Your task to perform on an android device: Go to privacy settings Image 0: 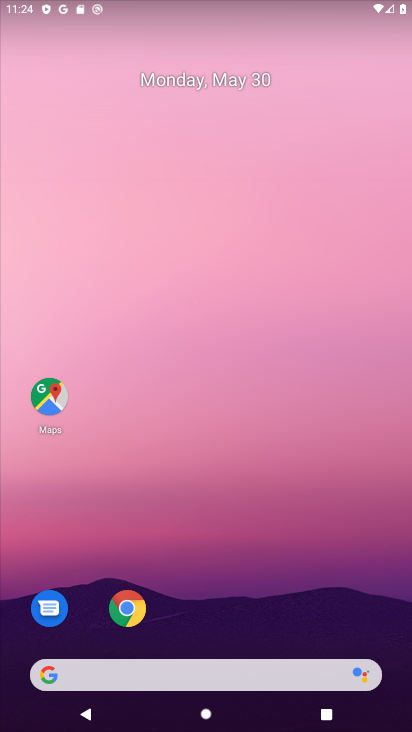
Step 0: click (131, 606)
Your task to perform on an android device: Go to privacy settings Image 1: 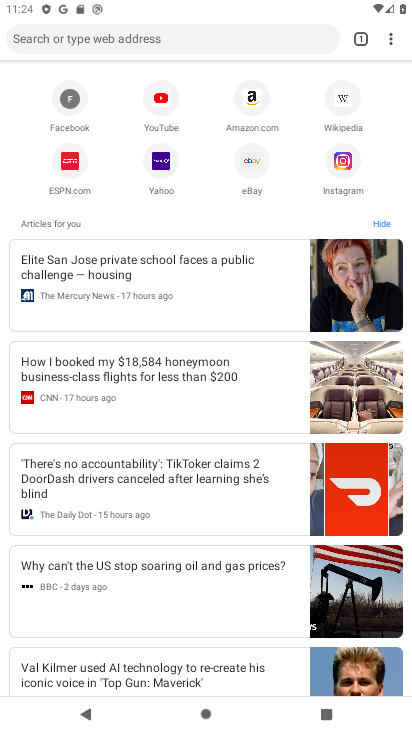
Step 1: click (387, 37)
Your task to perform on an android device: Go to privacy settings Image 2: 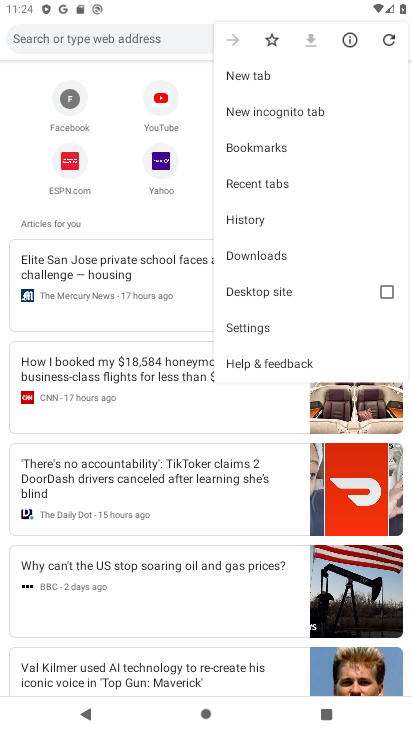
Step 2: click (257, 334)
Your task to perform on an android device: Go to privacy settings Image 3: 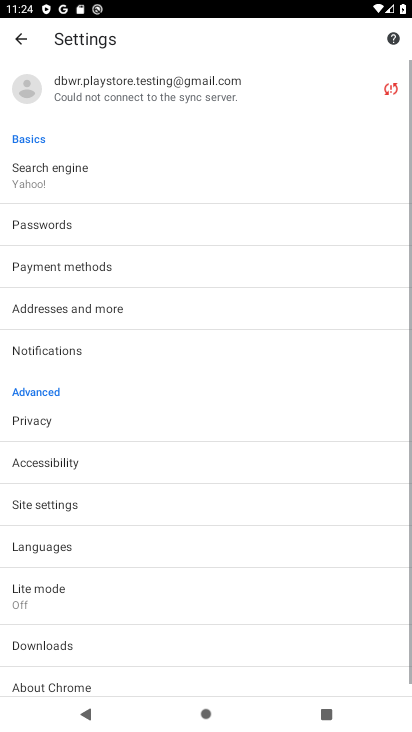
Step 3: click (45, 421)
Your task to perform on an android device: Go to privacy settings Image 4: 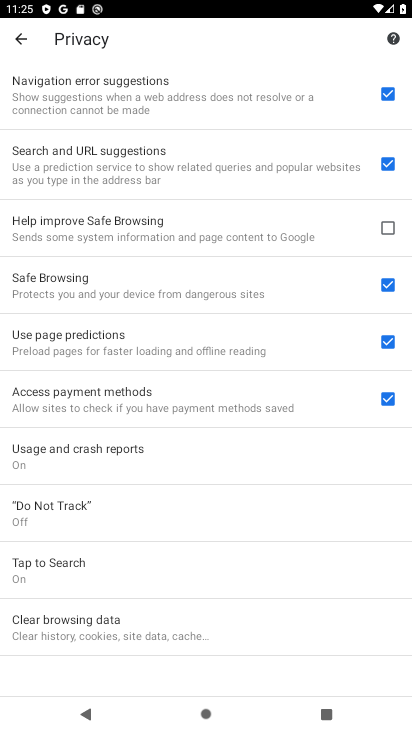
Step 4: task complete